Your task to perform on an android device: change the clock style Image 0: 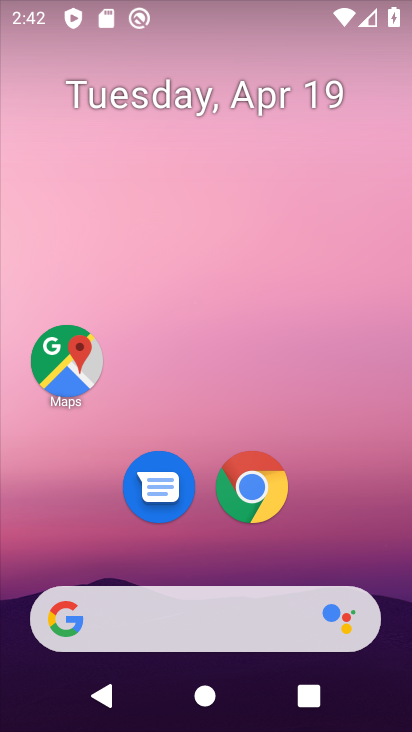
Step 0: drag from (210, 475) to (267, 19)
Your task to perform on an android device: change the clock style Image 1: 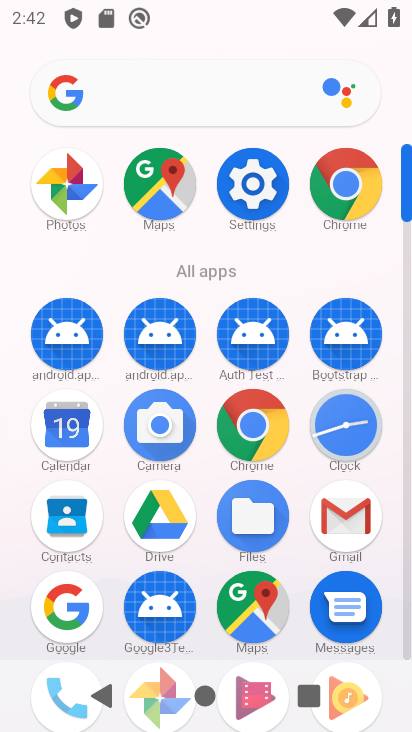
Step 1: click (347, 437)
Your task to perform on an android device: change the clock style Image 2: 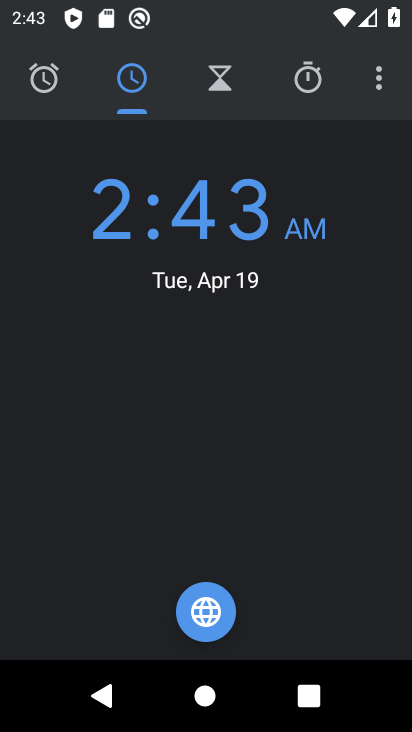
Step 2: click (372, 79)
Your task to perform on an android device: change the clock style Image 3: 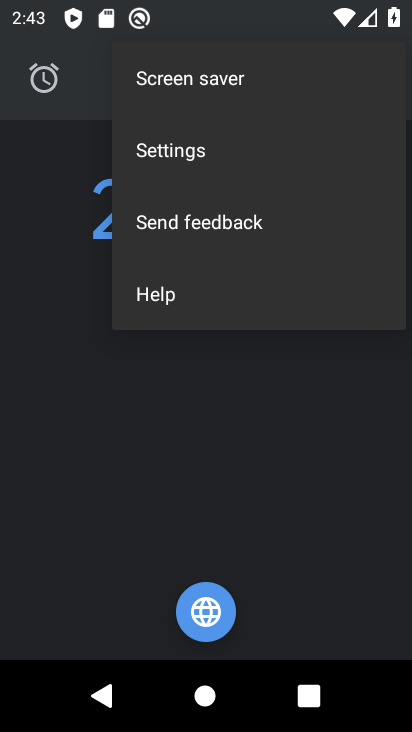
Step 3: click (175, 159)
Your task to perform on an android device: change the clock style Image 4: 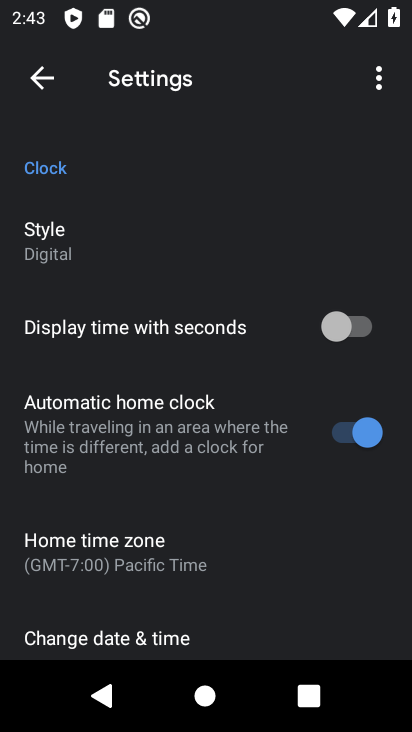
Step 4: drag from (164, 566) to (138, 711)
Your task to perform on an android device: change the clock style Image 5: 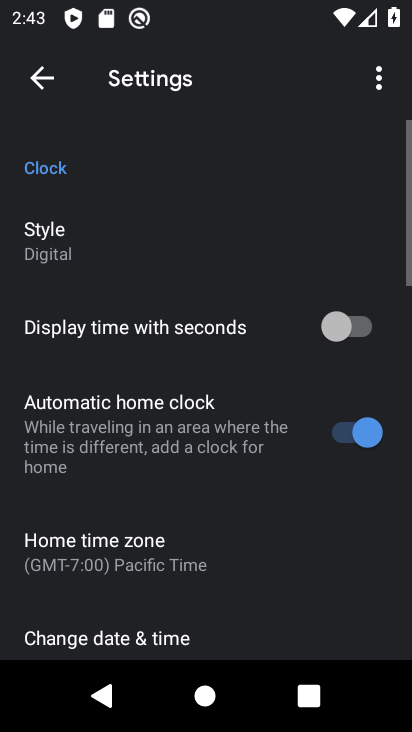
Step 5: click (113, 248)
Your task to perform on an android device: change the clock style Image 6: 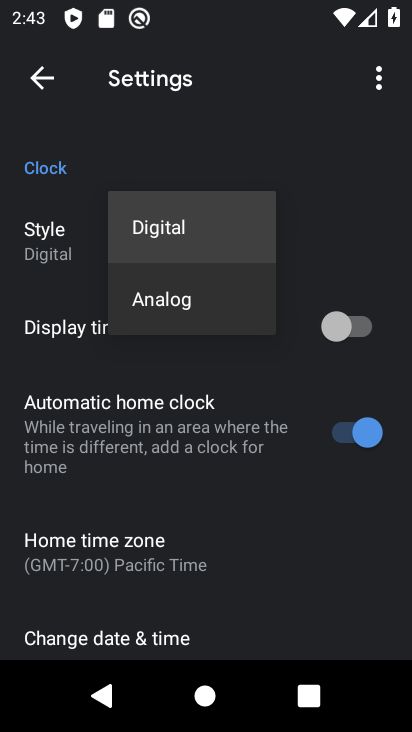
Step 6: click (150, 291)
Your task to perform on an android device: change the clock style Image 7: 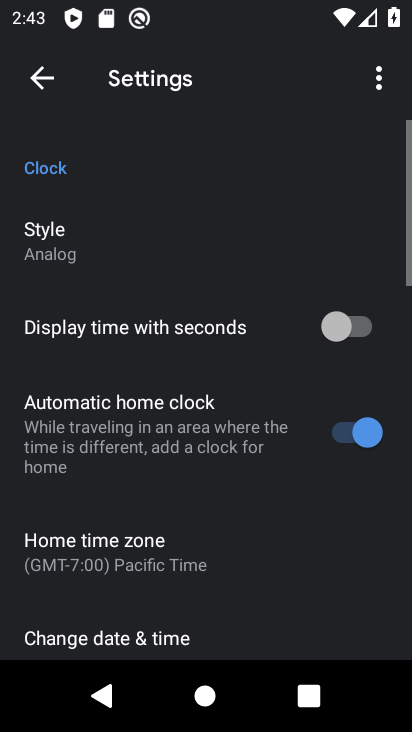
Step 7: task complete